Your task to perform on an android device: Toggle the flashlight Image 0: 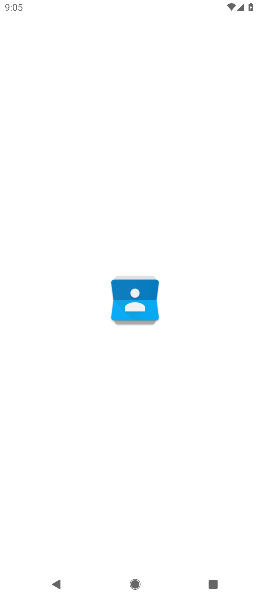
Step 0: press home button
Your task to perform on an android device: Toggle the flashlight Image 1: 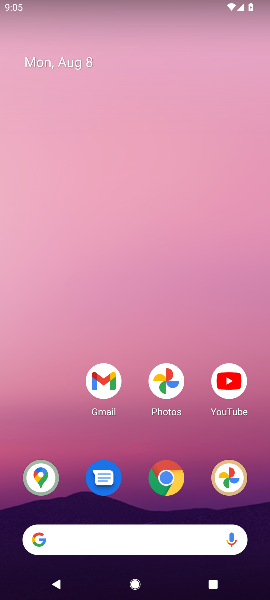
Step 1: task complete